Your task to perform on an android device: Open calendar and show me the third week of next month Image 0: 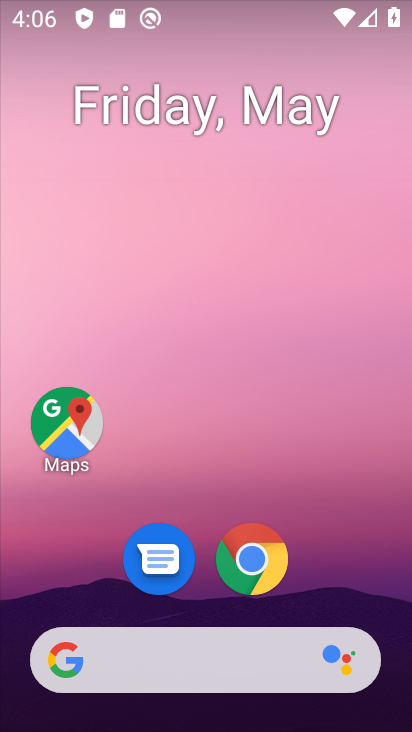
Step 0: drag from (292, 558) to (278, 126)
Your task to perform on an android device: Open calendar and show me the third week of next month Image 1: 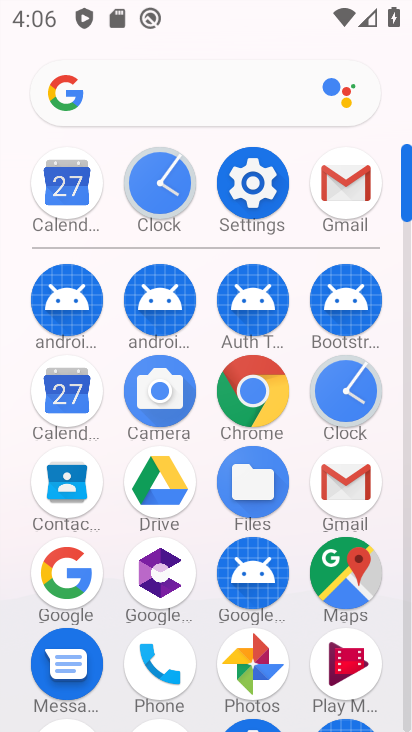
Step 1: click (69, 185)
Your task to perform on an android device: Open calendar and show me the third week of next month Image 2: 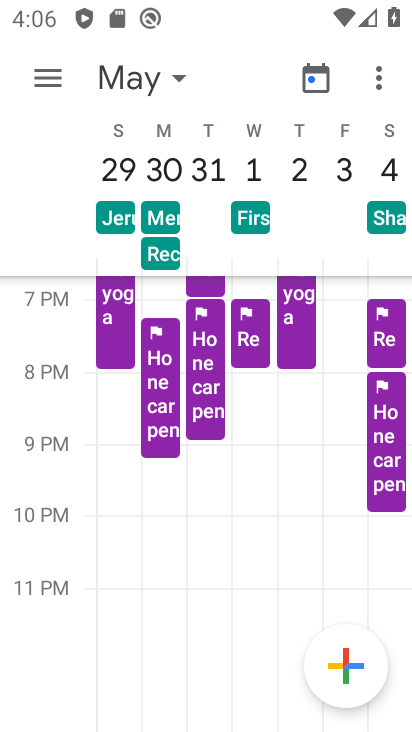
Step 2: click (74, 85)
Your task to perform on an android device: Open calendar and show me the third week of next month Image 3: 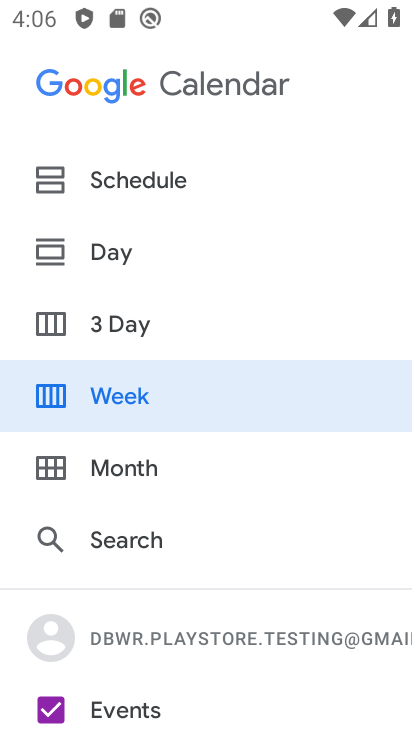
Step 3: click (116, 381)
Your task to perform on an android device: Open calendar and show me the third week of next month Image 4: 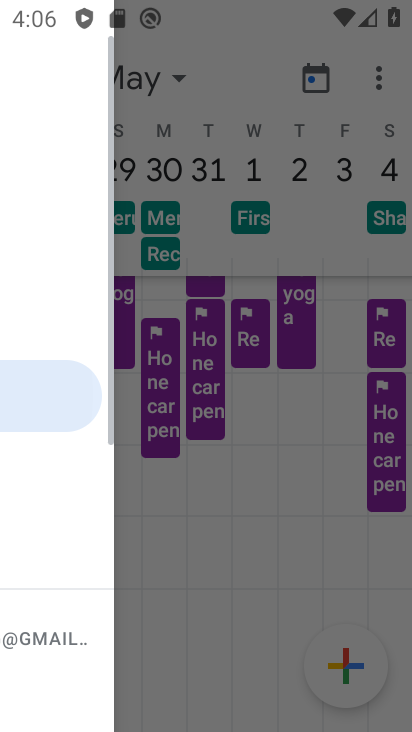
Step 4: click (116, 377)
Your task to perform on an android device: Open calendar and show me the third week of next month Image 5: 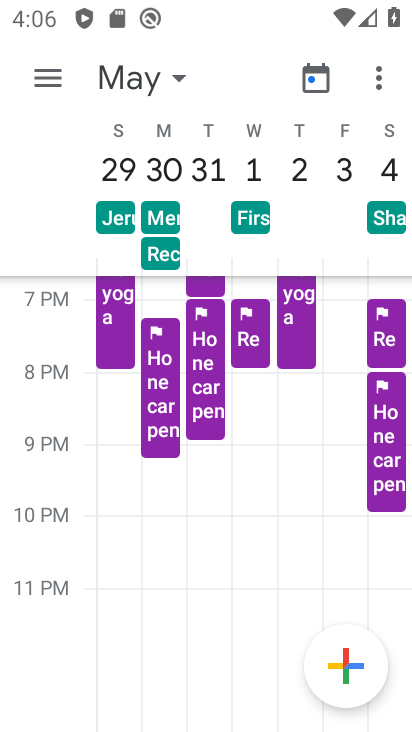
Step 5: task complete